Your task to perform on an android device: Search for logitech g pro on costco, select the first entry, add it to the cart, then select checkout. Image 0: 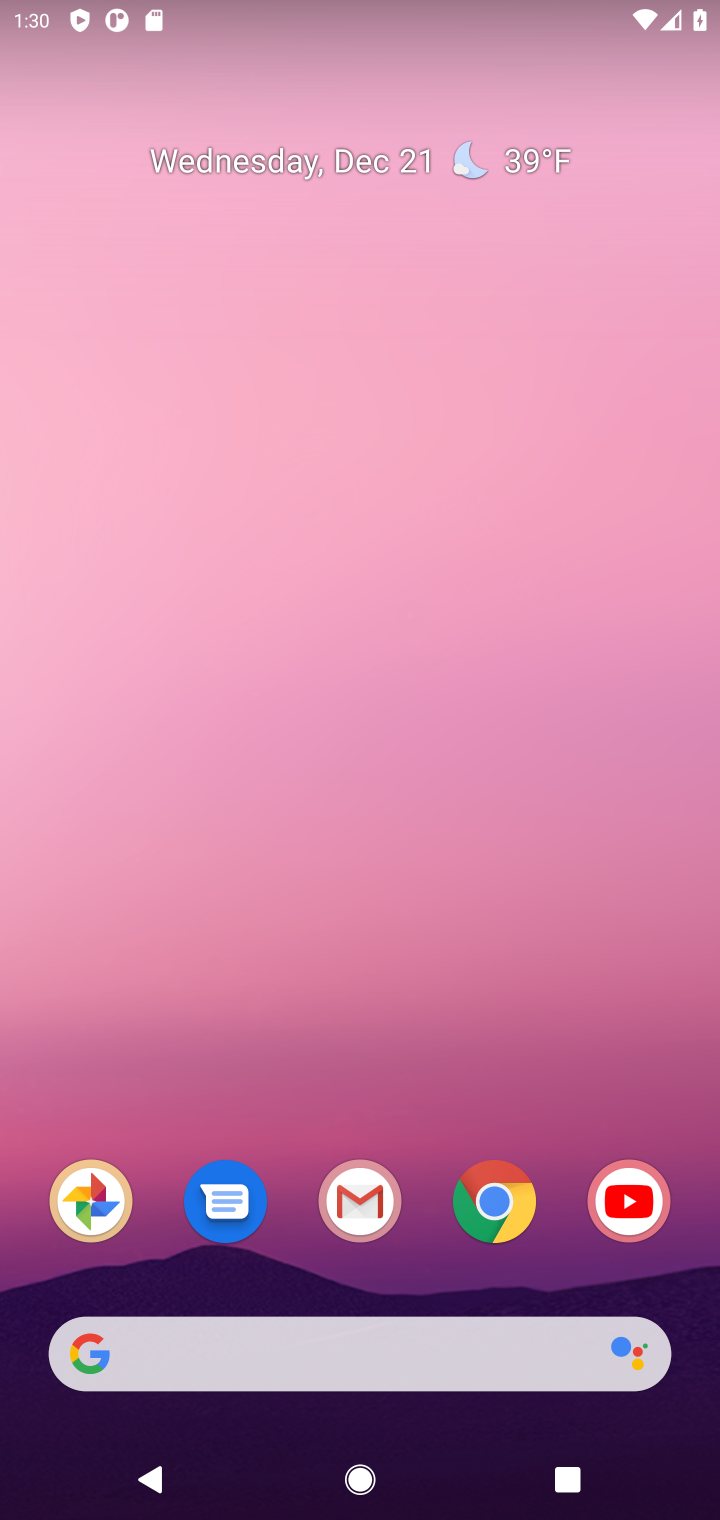
Step 0: click (493, 1210)
Your task to perform on an android device: Search for logitech g pro on costco, select the first entry, add it to the cart, then select checkout. Image 1: 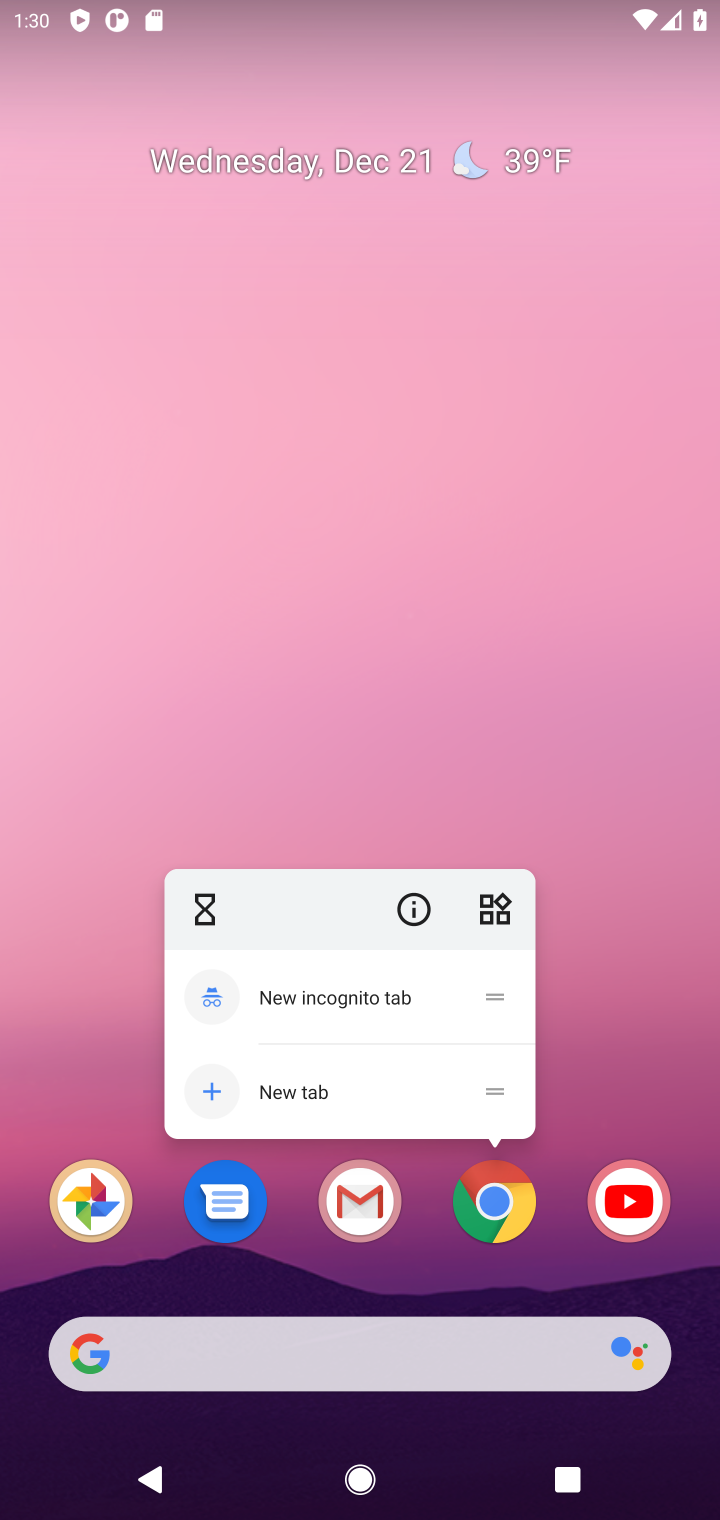
Step 1: click (493, 1210)
Your task to perform on an android device: Search for logitech g pro on costco, select the first entry, add it to the cart, then select checkout. Image 2: 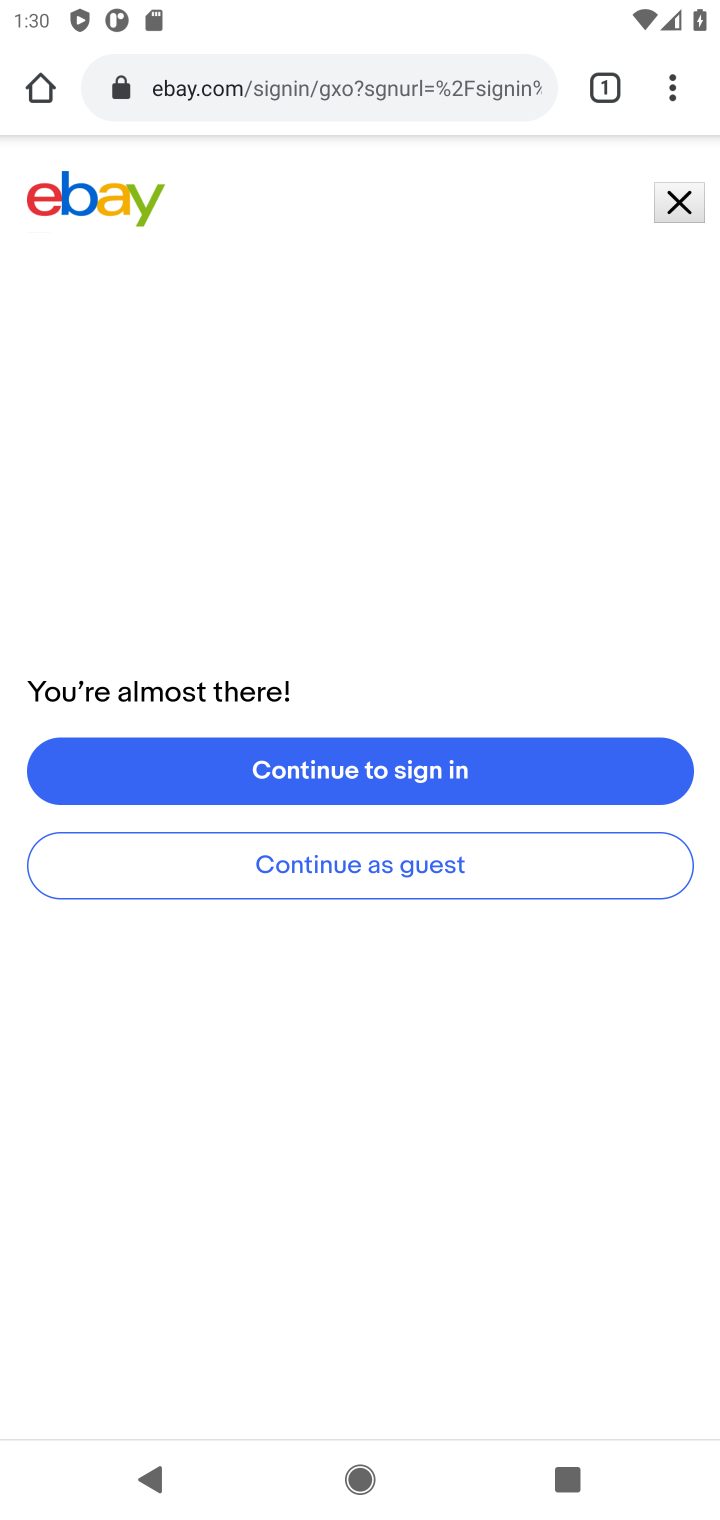
Step 2: click (266, 96)
Your task to perform on an android device: Search for logitech g pro on costco, select the first entry, add it to the cart, then select checkout. Image 3: 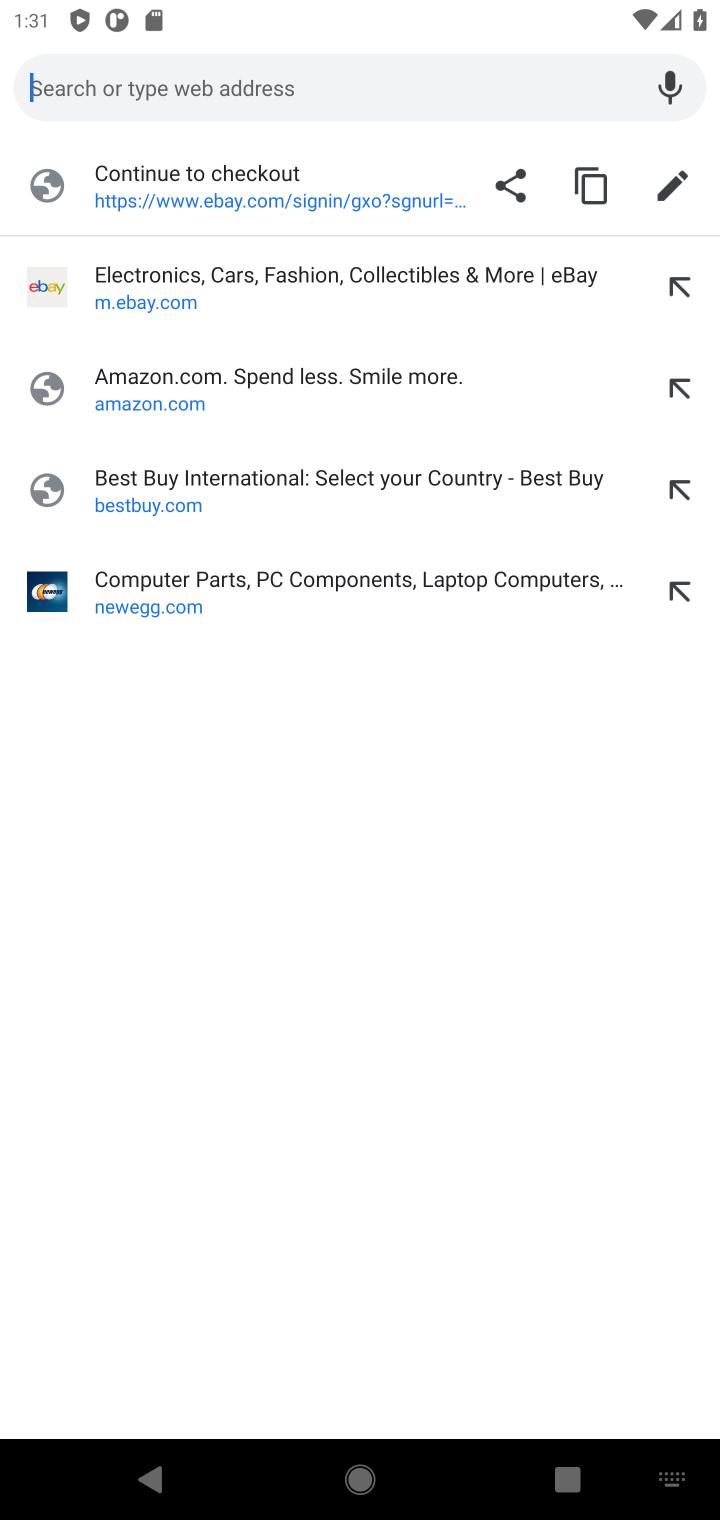
Step 3: type "costco.com"
Your task to perform on an android device: Search for logitech g pro on costco, select the first entry, add it to the cart, then select checkout. Image 4: 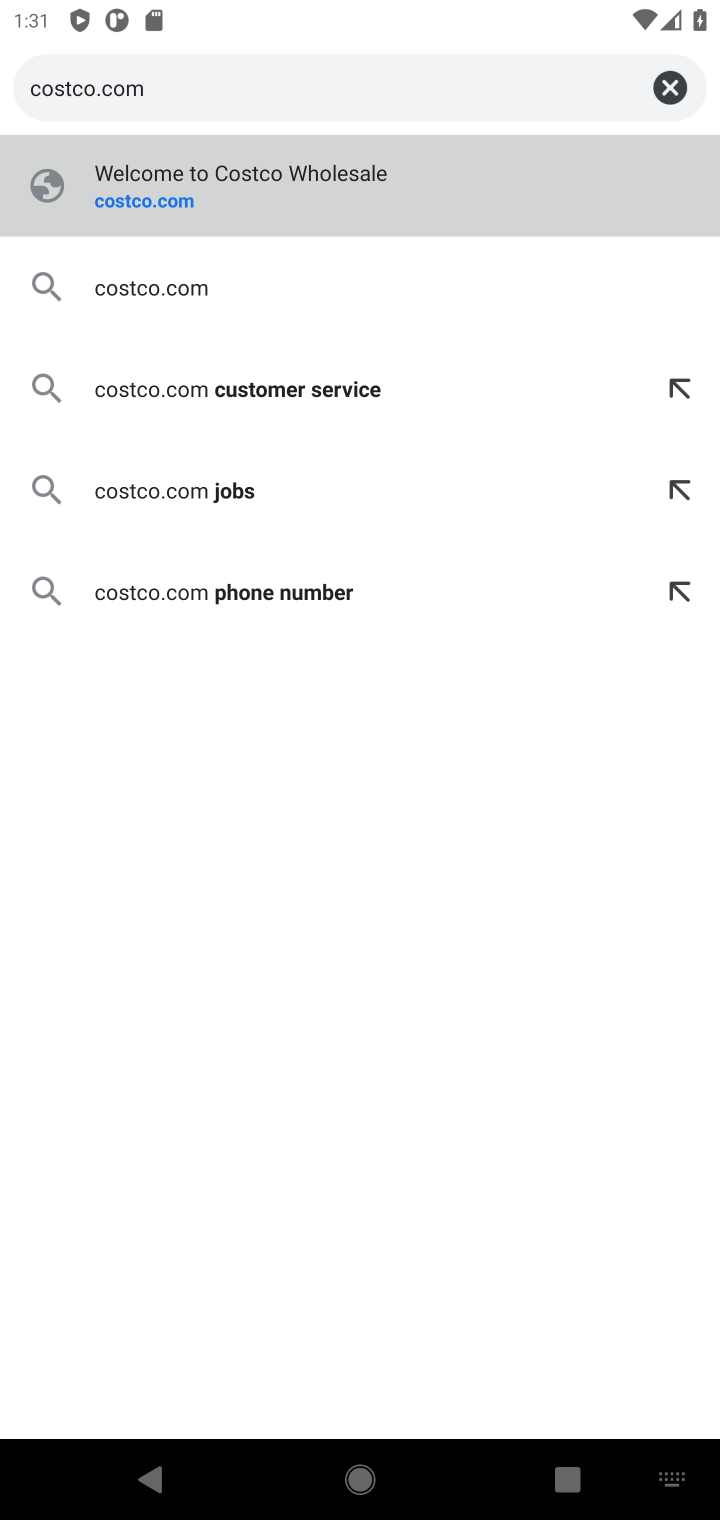
Step 4: click (132, 203)
Your task to perform on an android device: Search for logitech g pro on costco, select the first entry, add it to the cart, then select checkout. Image 5: 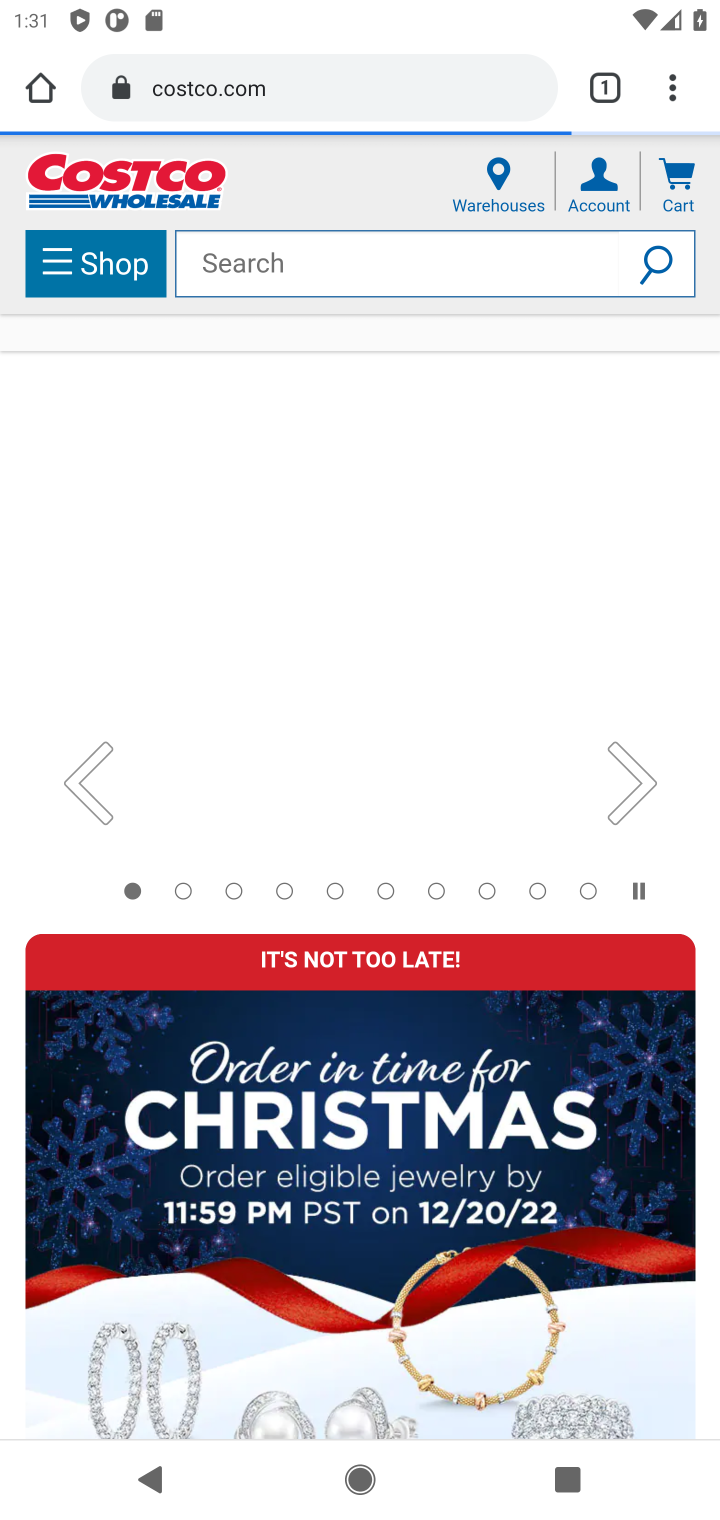
Step 5: click (266, 270)
Your task to perform on an android device: Search for logitech g pro on costco, select the first entry, add it to the cart, then select checkout. Image 6: 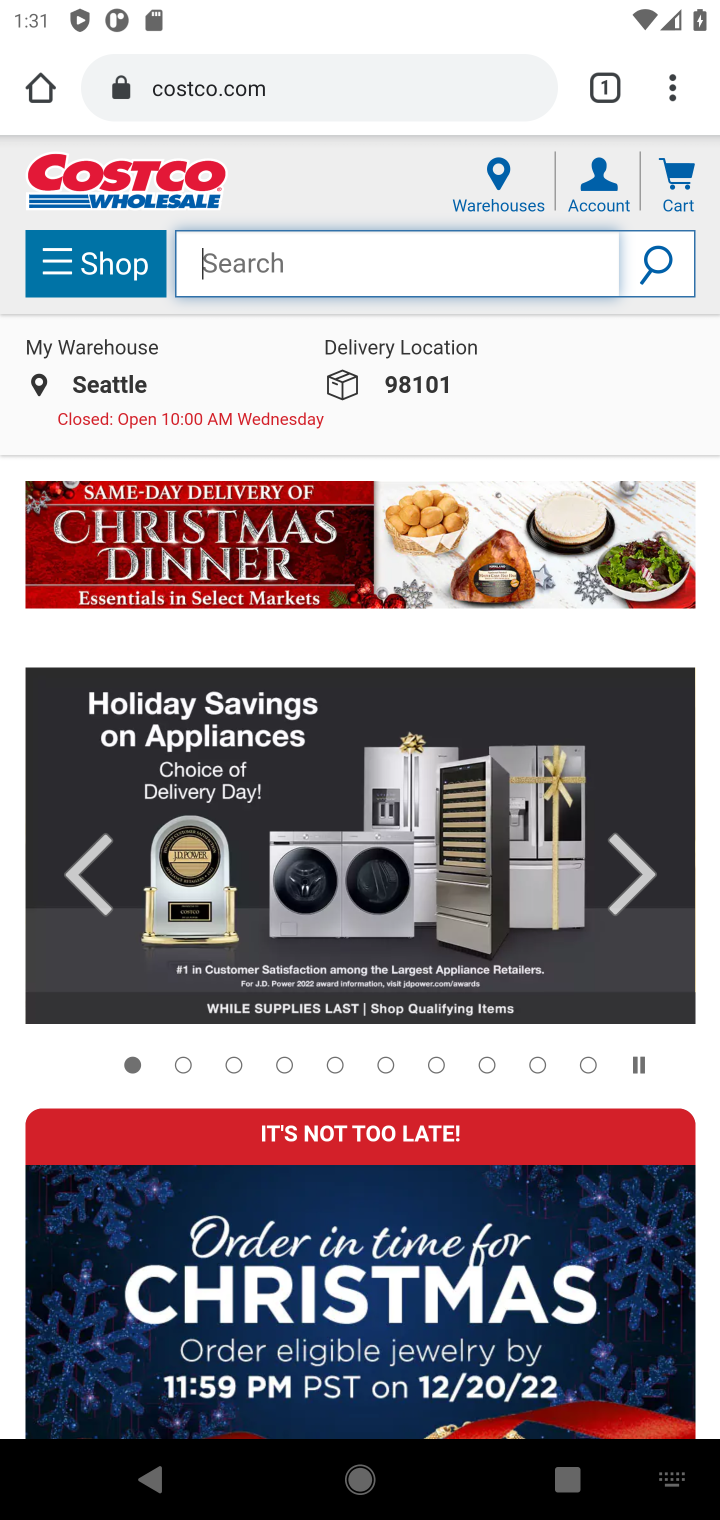
Step 6: type "logitech g pro "
Your task to perform on an android device: Search for logitech g pro on costco, select the first entry, add it to the cart, then select checkout. Image 7: 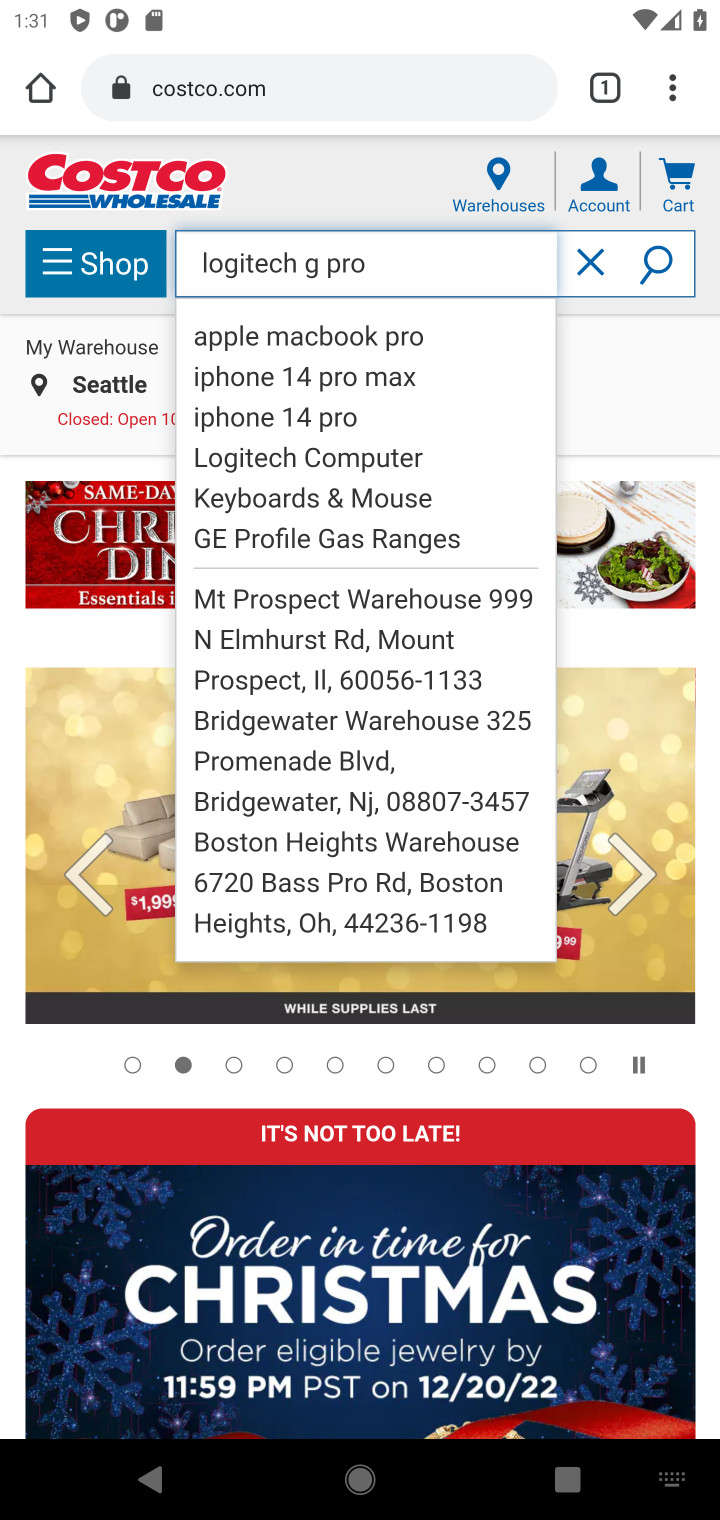
Step 7: click (663, 258)
Your task to perform on an android device: Search for logitech g pro on costco, select the first entry, add it to the cart, then select checkout. Image 8: 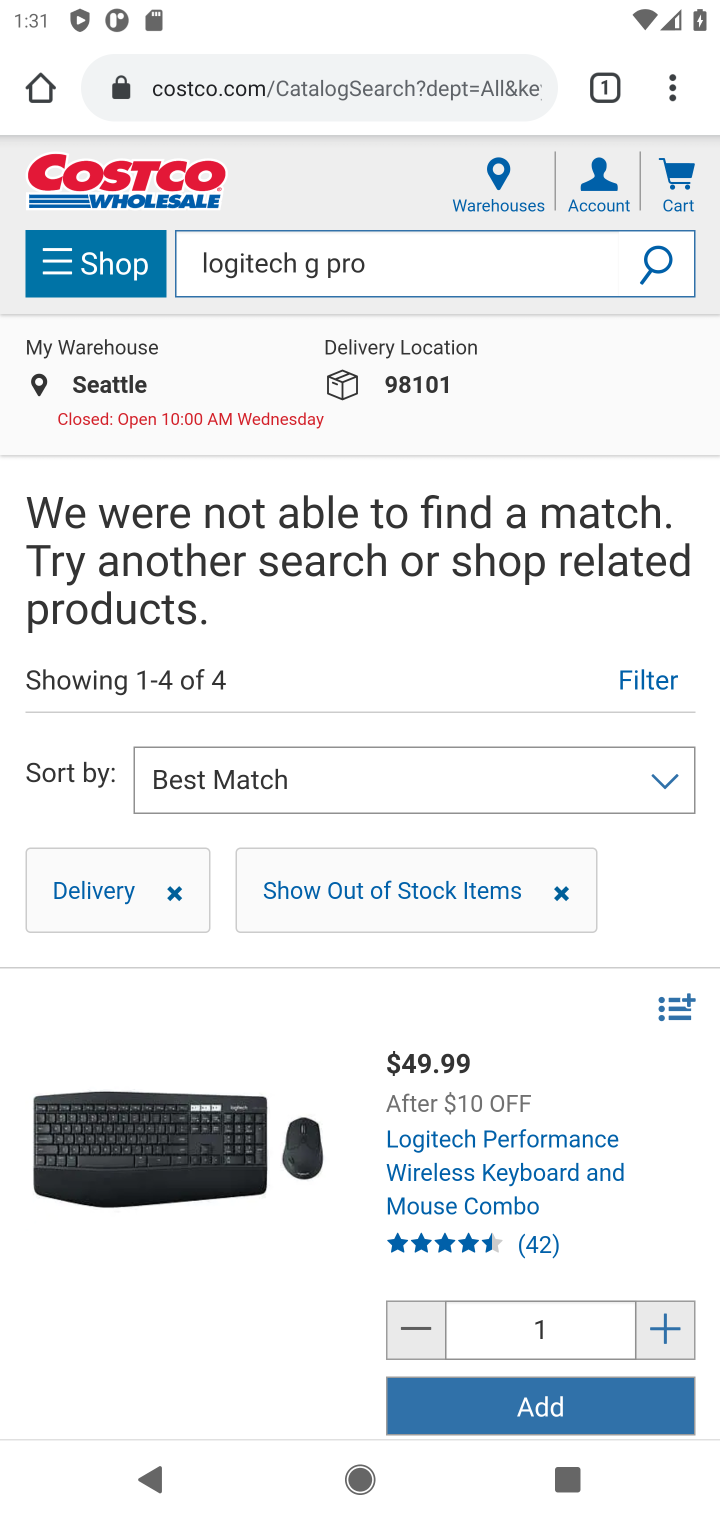
Step 8: task complete